Your task to perform on an android device: What is the news today? Image 0: 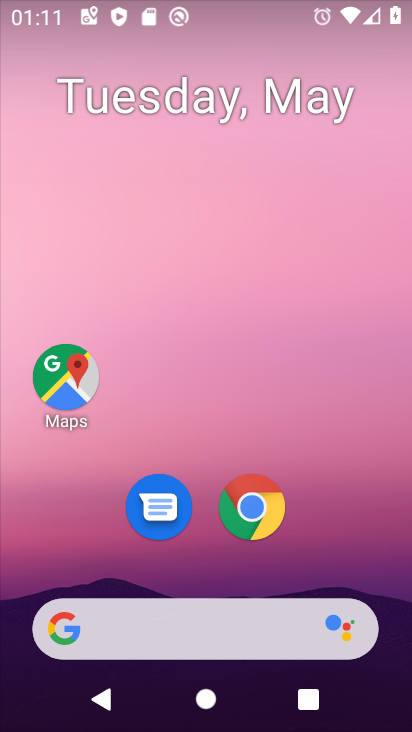
Step 0: drag from (230, 588) to (218, 260)
Your task to perform on an android device: What is the news today? Image 1: 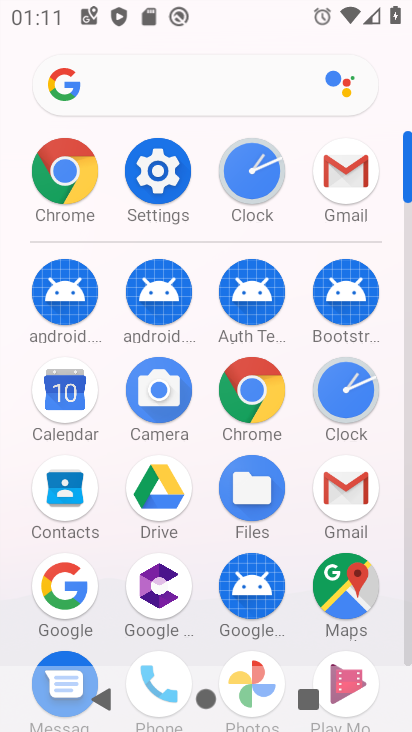
Step 1: click (54, 584)
Your task to perform on an android device: What is the news today? Image 2: 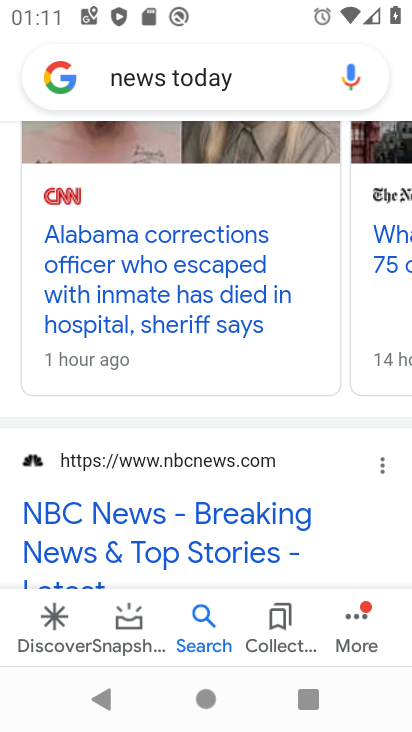
Step 2: task complete